Your task to perform on an android device: Open CNN.com Image 0: 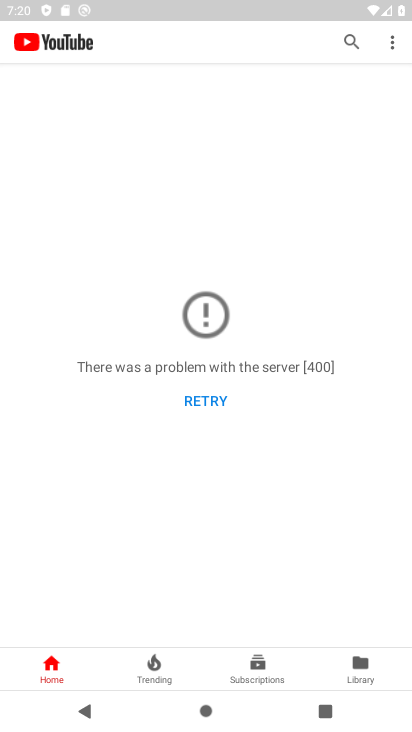
Step 0: press home button
Your task to perform on an android device: Open CNN.com Image 1: 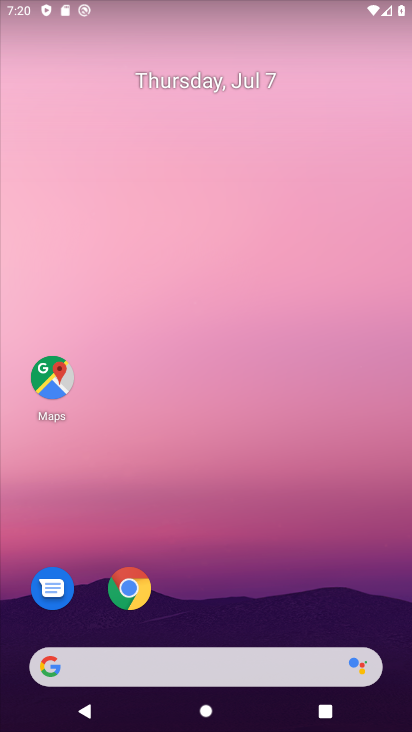
Step 1: click (129, 589)
Your task to perform on an android device: Open CNN.com Image 2: 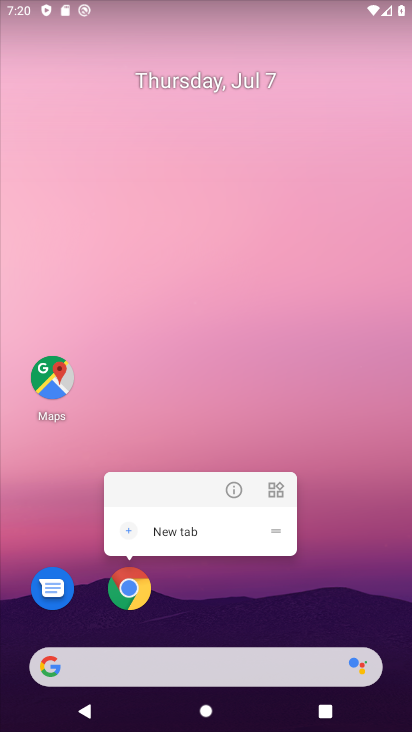
Step 2: click (137, 591)
Your task to perform on an android device: Open CNN.com Image 3: 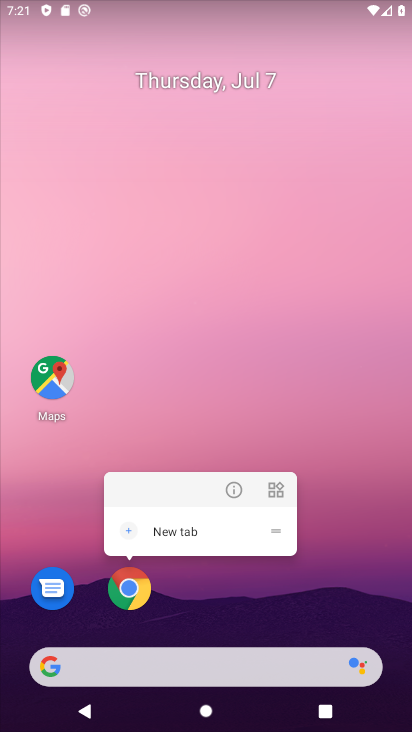
Step 3: click (131, 586)
Your task to perform on an android device: Open CNN.com Image 4: 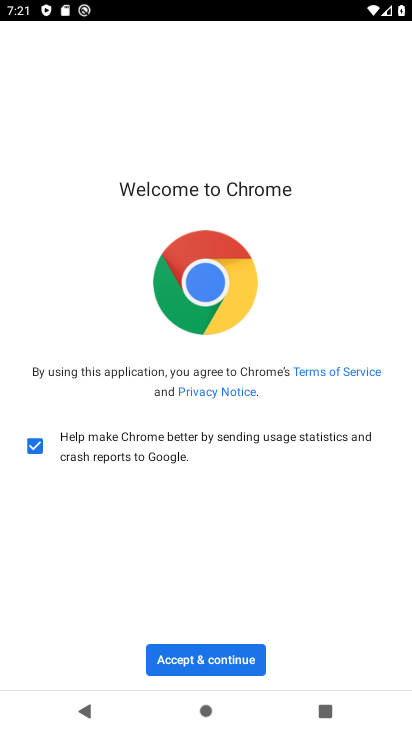
Step 4: click (230, 666)
Your task to perform on an android device: Open CNN.com Image 5: 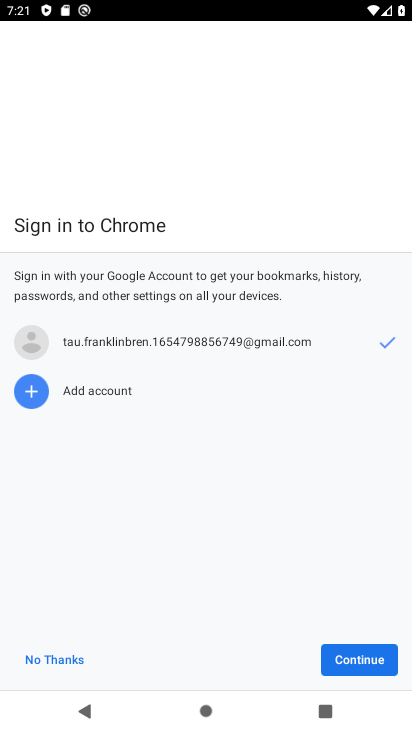
Step 5: click (368, 654)
Your task to perform on an android device: Open CNN.com Image 6: 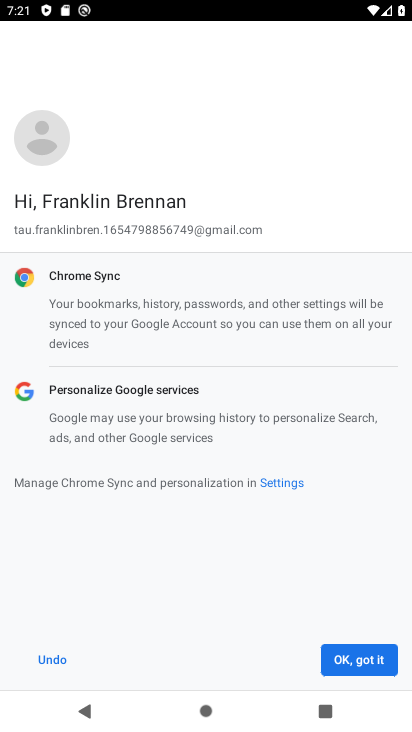
Step 6: click (372, 658)
Your task to perform on an android device: Open CNN.com Image 7: 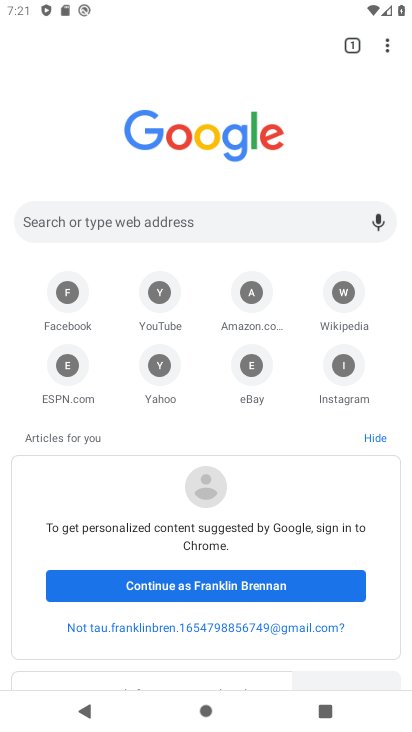
Step 7: click (179, 45)
Your task to perform on an android device: Open CNN.com Image 8: 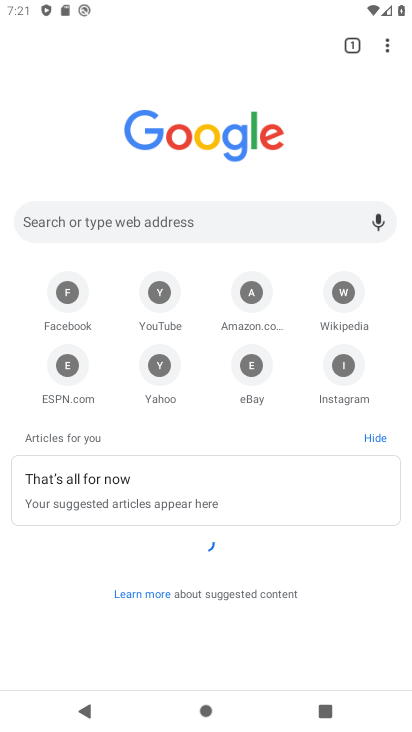
Step 8: click (252, 222)
Your task to perform on an android device: Open CNN.com Image 9: 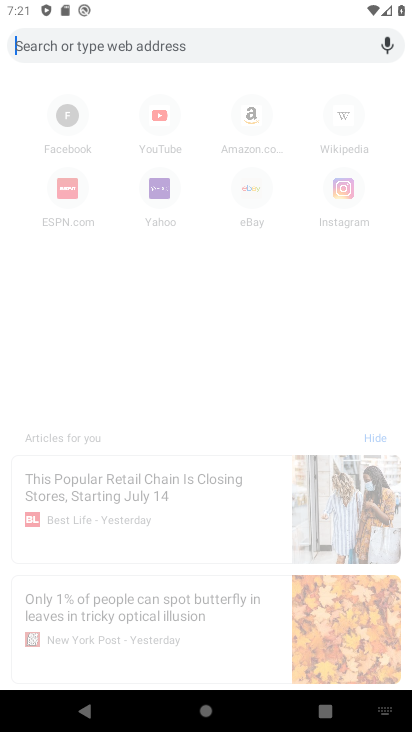
Step 9: type "CNN.com"
Your task to perform on an android device: Open CNN.com Image 10: 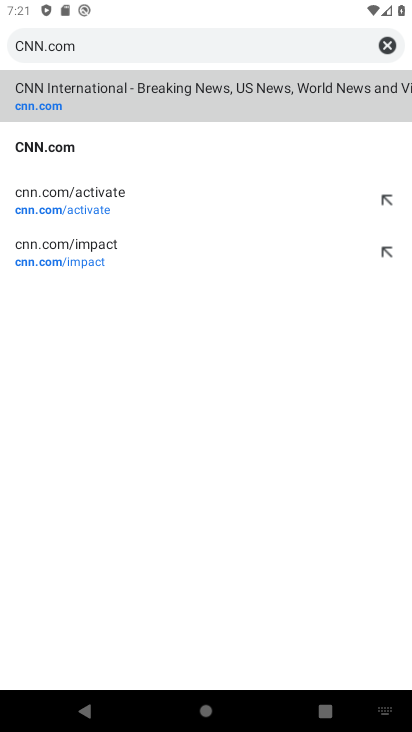
Step 10: click (28, 101)
Your task to perform on an android device: Open CNN.com Image 11: 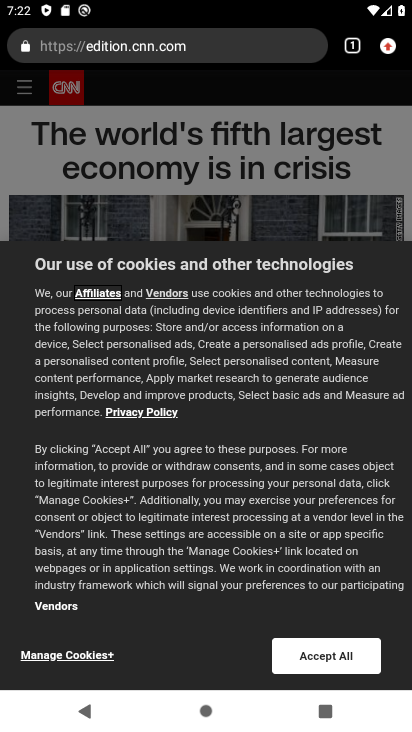
Step 11: task complete